Your task to perform on an android device: open app "Booking.com: Hotels and more" (install if not already installed) Image 0: 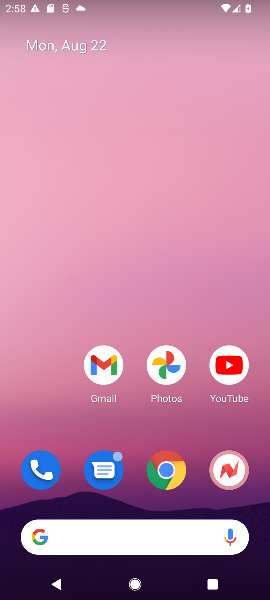
Step 0: drag from (137, 485) to (182, 78)
Your task to perform on an android device: open app "Booking.com: Hotels and more" (install if not already installed) Image 1: 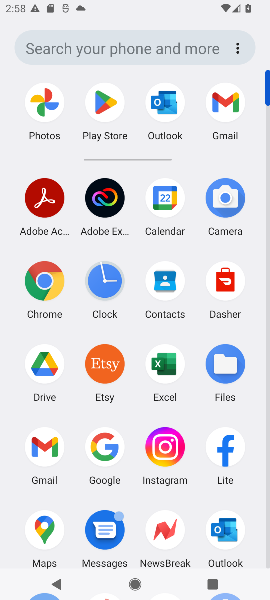
Step 1: drag from (133, 518) to (133, 214)
Your task to perform on an android device: open app "Booking.com: Hotels and more" (install if not already installed) Image 2: 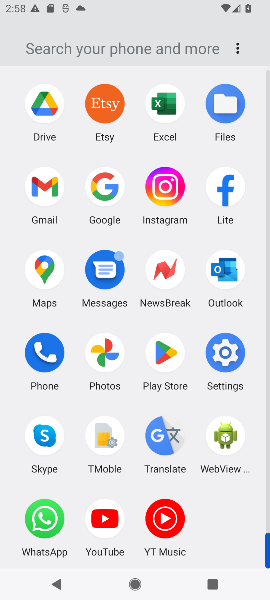
Step 2: click (167, 359)
Your task to perform on an android device: open app "Booking.com: Hotels and more" (install if not already installed) Image 3: 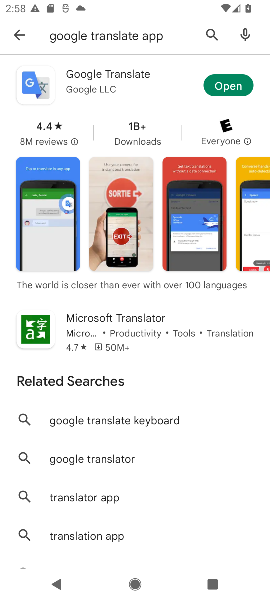
Step 3: click (13, 28)
Your task to perform on an android device: open app "Booking.com: Hotels and more" (install if not already installed) Image 4: 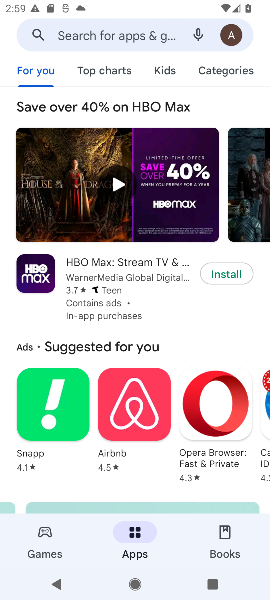
Step 4: click (125, 25)
Your task to perform on an android device: open app "Booking.com: Hotels and more" (install if not already installed) Image 5: 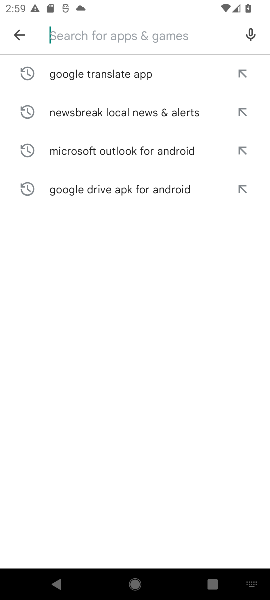
Step 5: type "Booking.com: Hotels and more "
Your task to perform on an android device: open app "Booking.com: Hotels and more" (install if not already installed) Image 6: 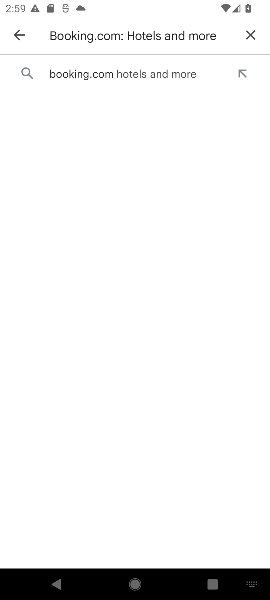
Step 6: click (134, 67)
Your task to perform on an android device: open app "Booking.com: Hotels and more" (install if not already installed) Image 7: 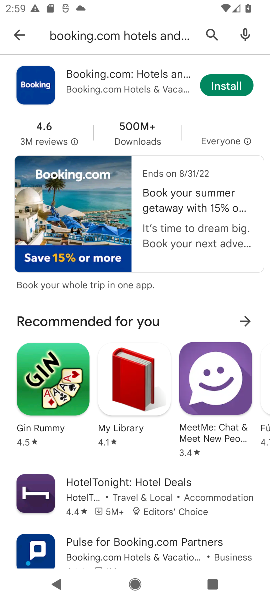
Step 7: click (220, 86)
Your task to perform on an android device: open app "Booking.com: Hotels and more" (install if not already installed) Image 8: 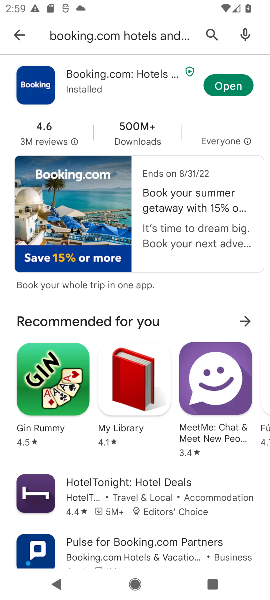
Step 8: click (212, 78)
Your task to perform on an android device: open app "Booking.com: Hotels and more" (install if not already installed) Image 9: 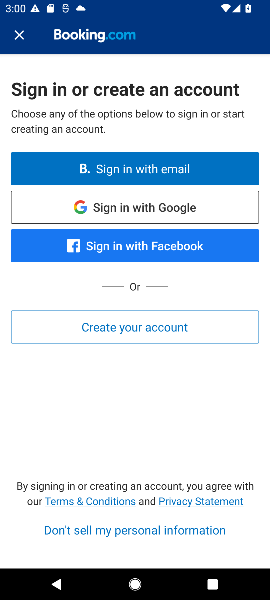
Step 9: task complete